Your task to perform on an android device: Open the calendar app Image 0: 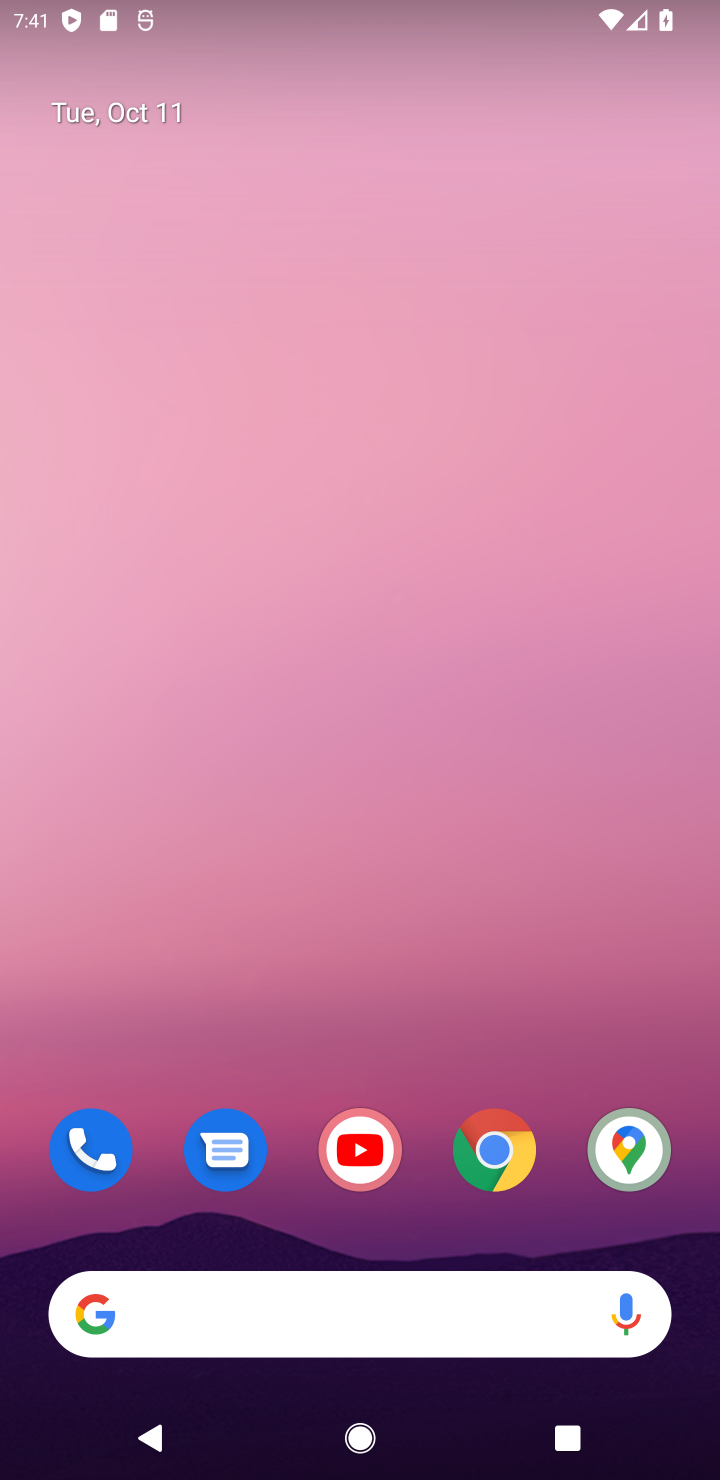
Step 0: drag from (417, 1111) to (397, 8)
Your task to perform on an android device: Open the calendar app Image 1: 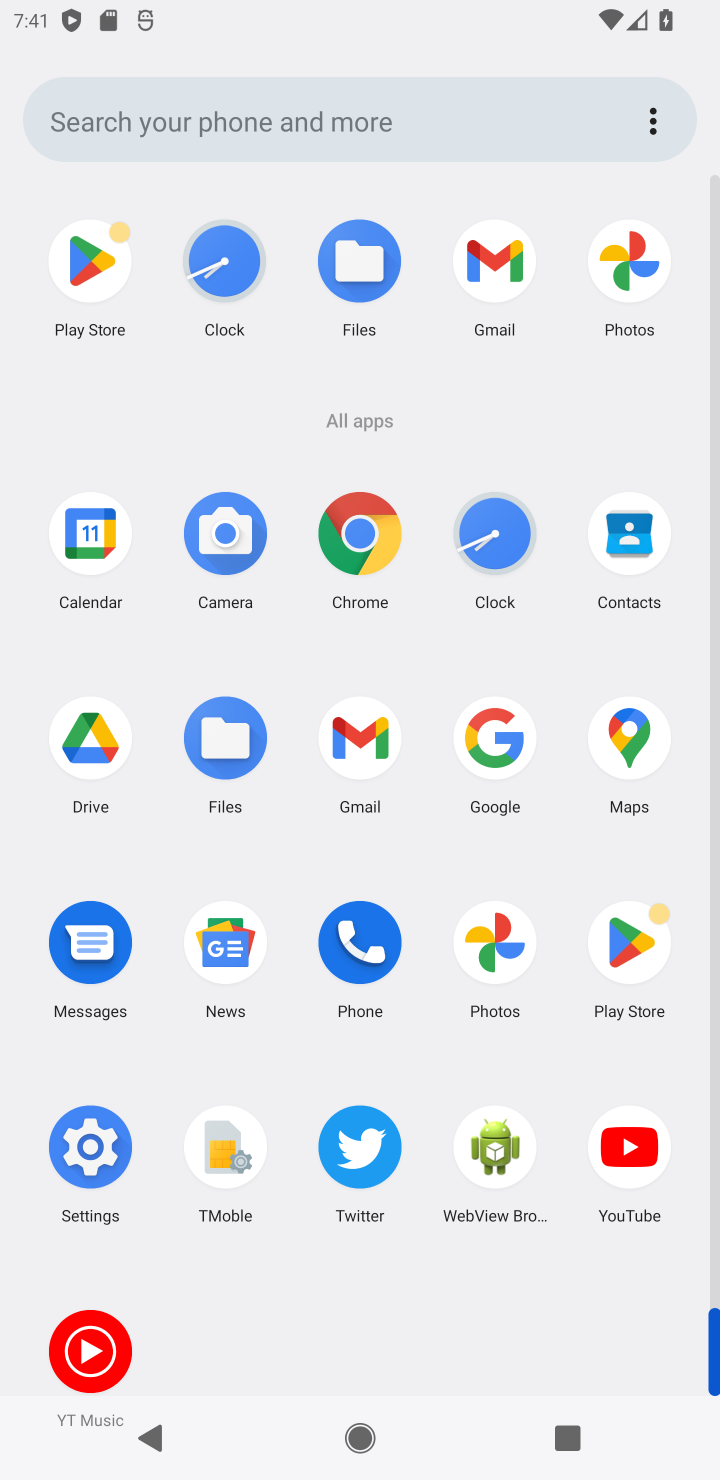
Step 1: click (94, 539)
Your task to perform on an android device: Open the calendar app Image 2: 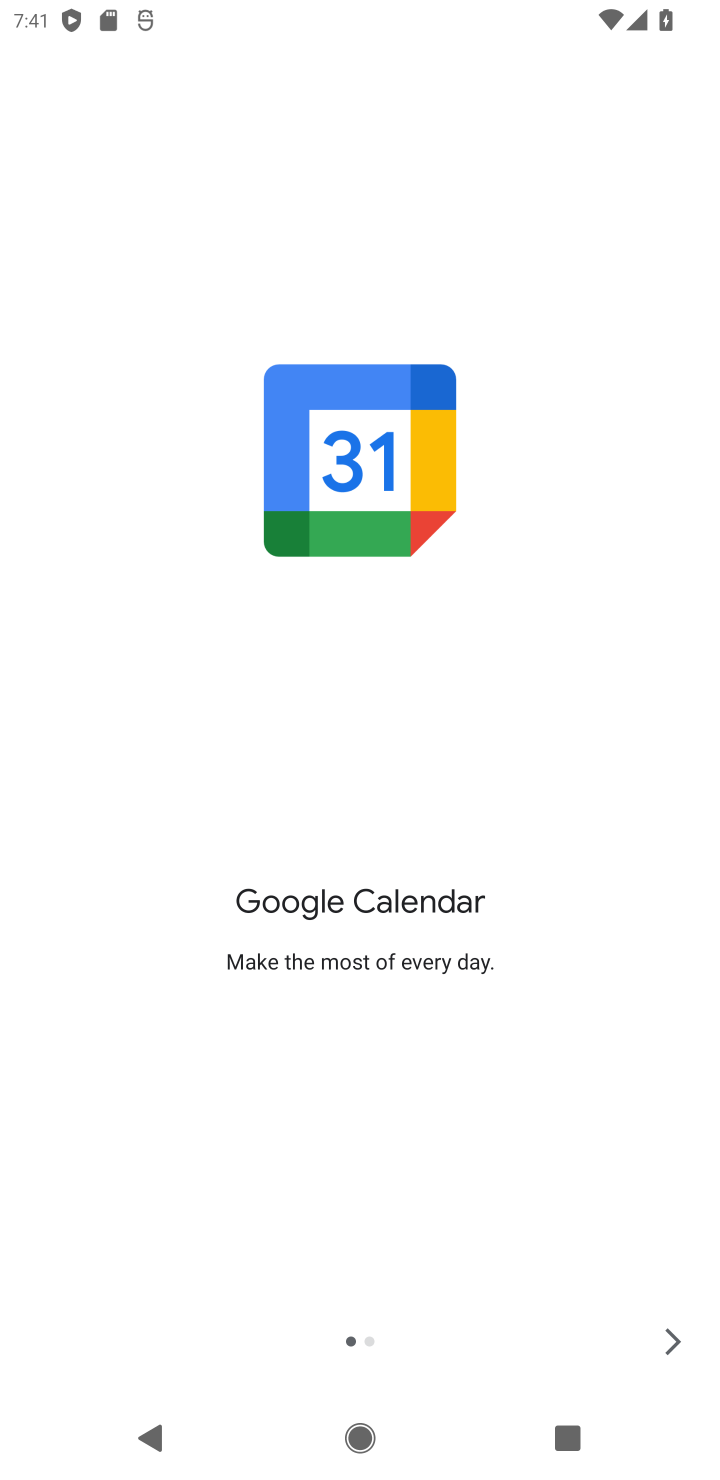
Step 2: click (663, 1345)
Your task to perform on an android device: Open the calendar app Image 3: 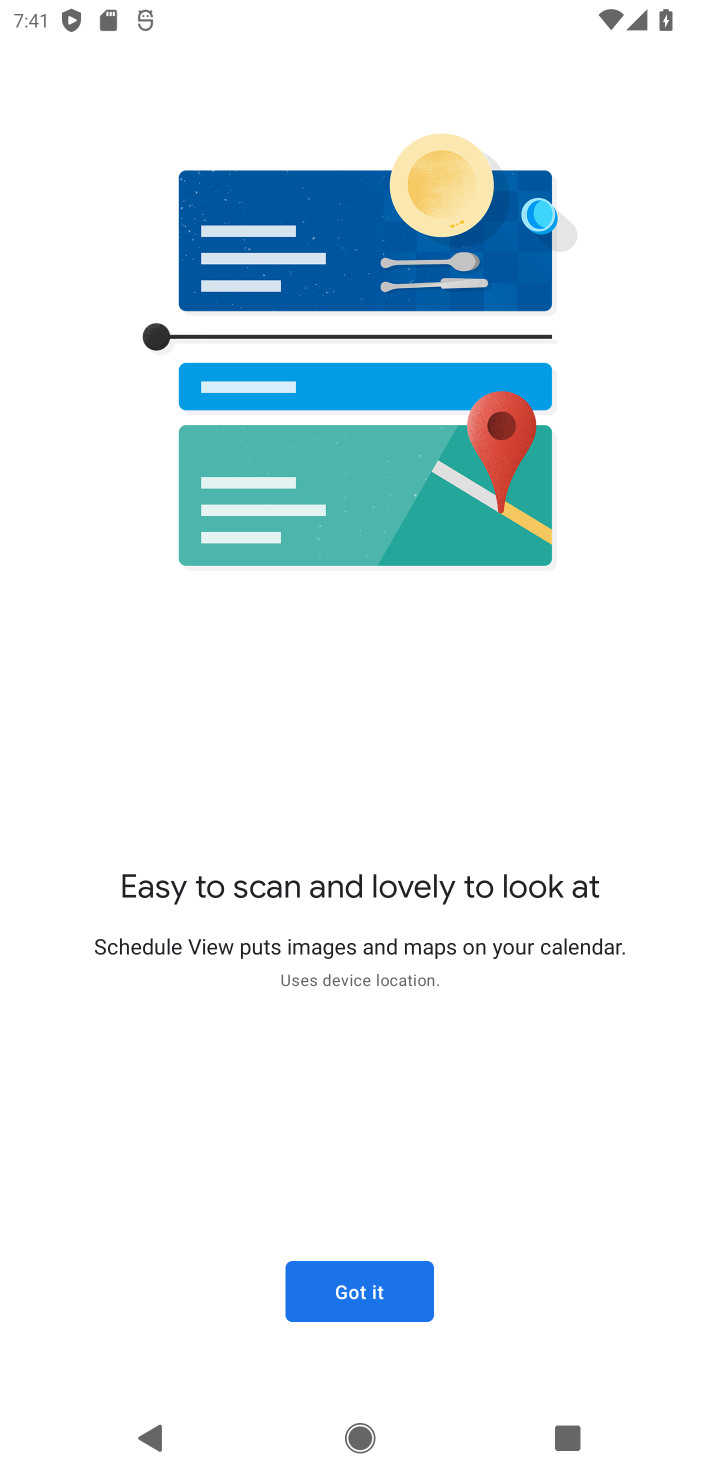
Step 3: click (338, 1277)
Your task to perform on an android device: Open the calendar app Image 4: 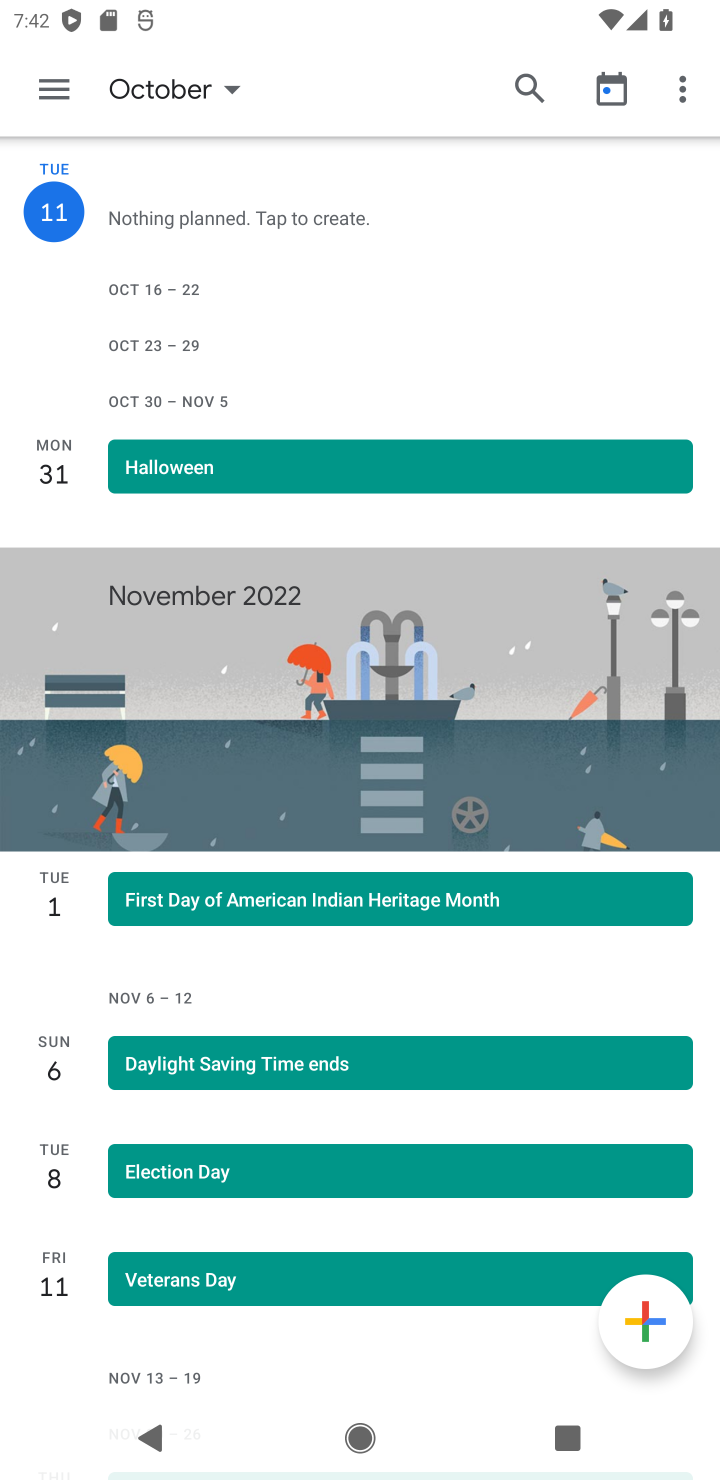
Step 4: task complete